Your task to perform on an android device: check android version Image 0: 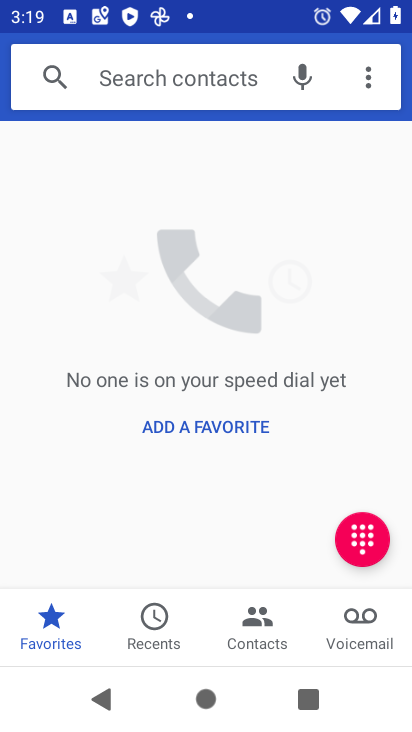
Step 0: press home button
Your task to perform on an android device: check android version Image 1: 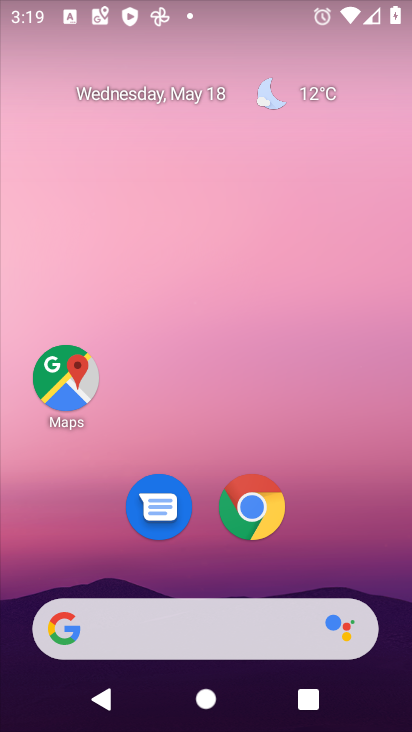
Step 1: drag from (396, 622) to (319, 93)
Your task to perform on an android device: check android version Image 2: 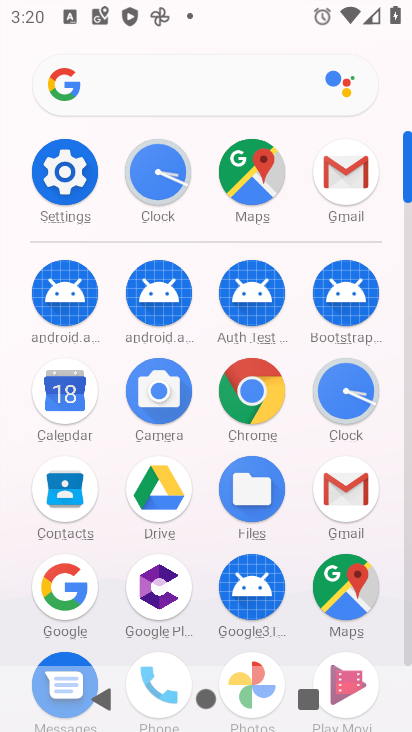
Step 2: click (408, 642)
Your task to perform on an android device: check android version Image 3: 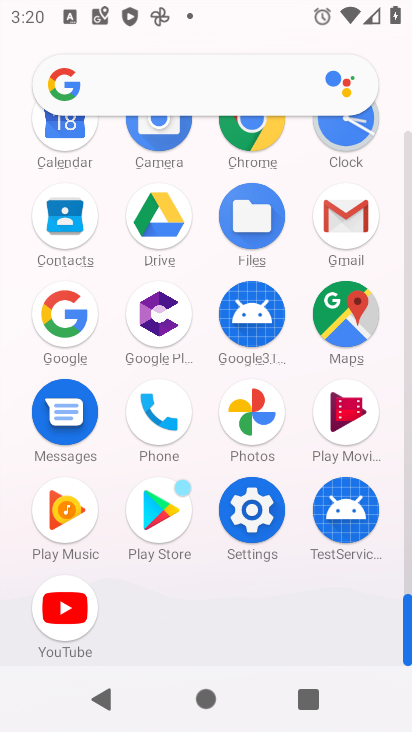
Step 3: click (253, 501)
Your task to perform on an android device: check android version Image 4: 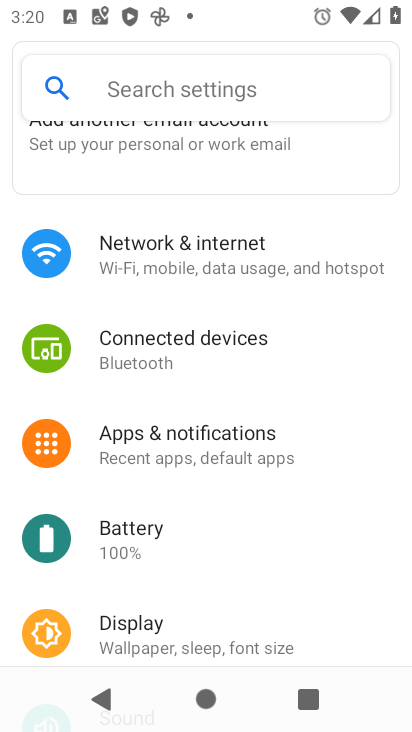
Step 4: drag from (326, 620) to (311, 104)
Your task to perform on an android device: check android version Image 5: 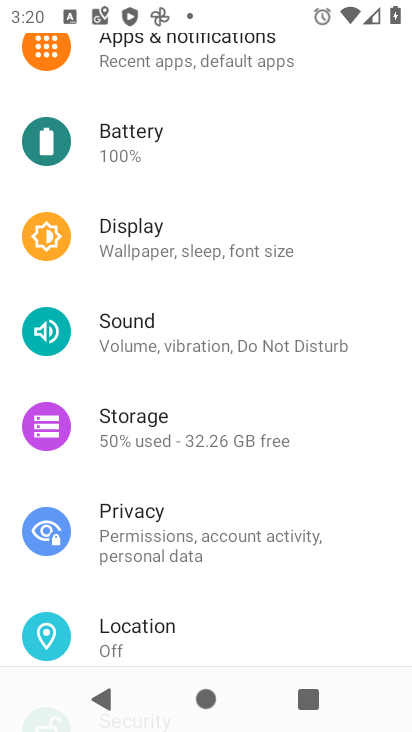
Step 5: drag from (315, 606) to (311, 144)
Your task to perform on an android device: check android version Image 6: 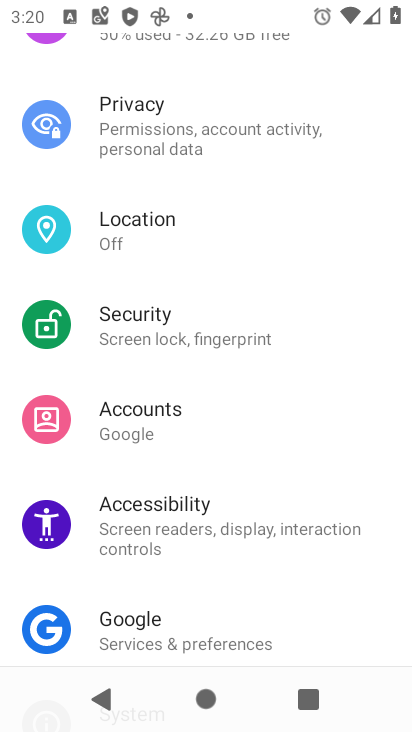
Step 6: drag from (328, 602) to (308, 150)
Your task to perform on an android device: check android version Image 7: 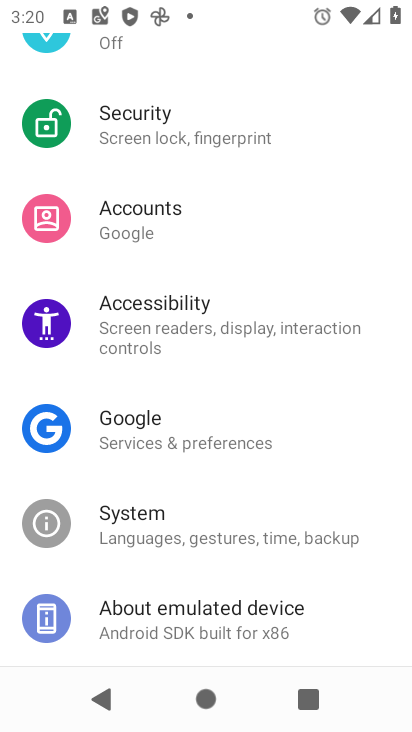
Step 7: click (143, 615)
Your task to perform on an android device: check android version Image 8: 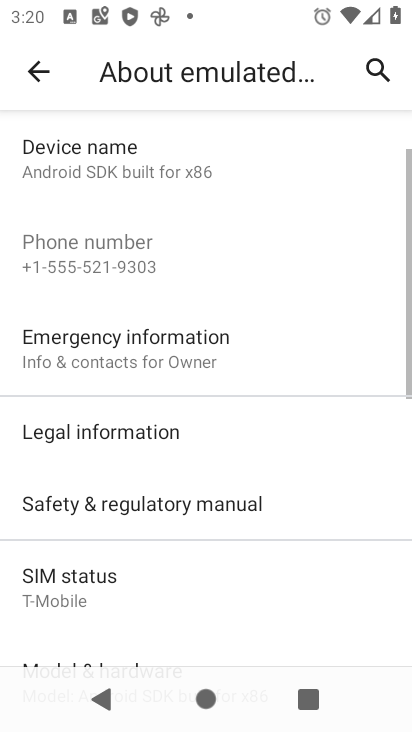
Step 8: drag from (291, 617) to (260, 376)
Your task to perform on an android device: check android version Image 9: 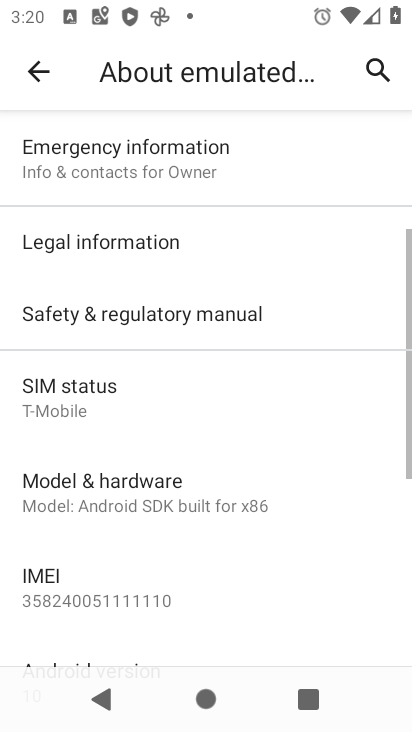
Step 9: drag from (279, 603) to (236, 290)
Your task to perform on an android device: check android version Image 10: 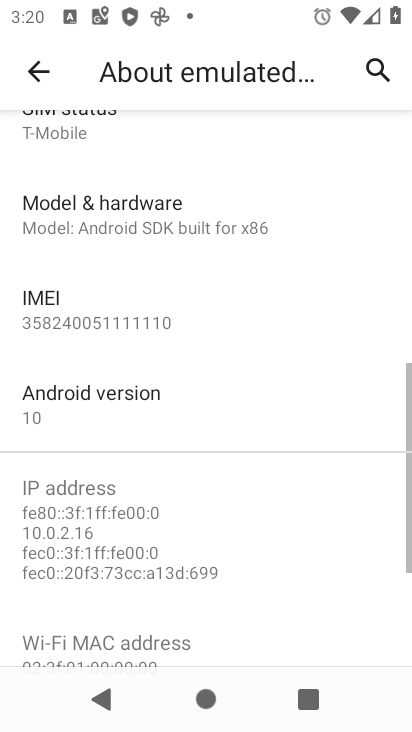
Step 10: click (81, 397)
Your task to perform on an android device: check android version Image 11: 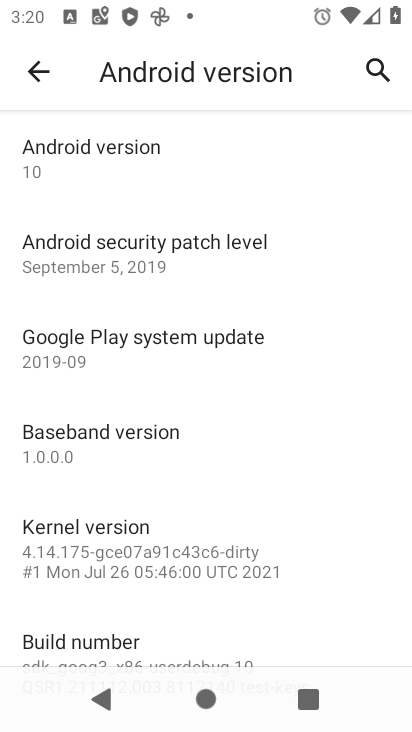
Step 11: task complete